Your task to perform on an android device: Clear all items from cart on bestbuy. Search for "alienware area 51" on bestbuy, select the first entry, add it to the cart, then select checkout. Image 0: 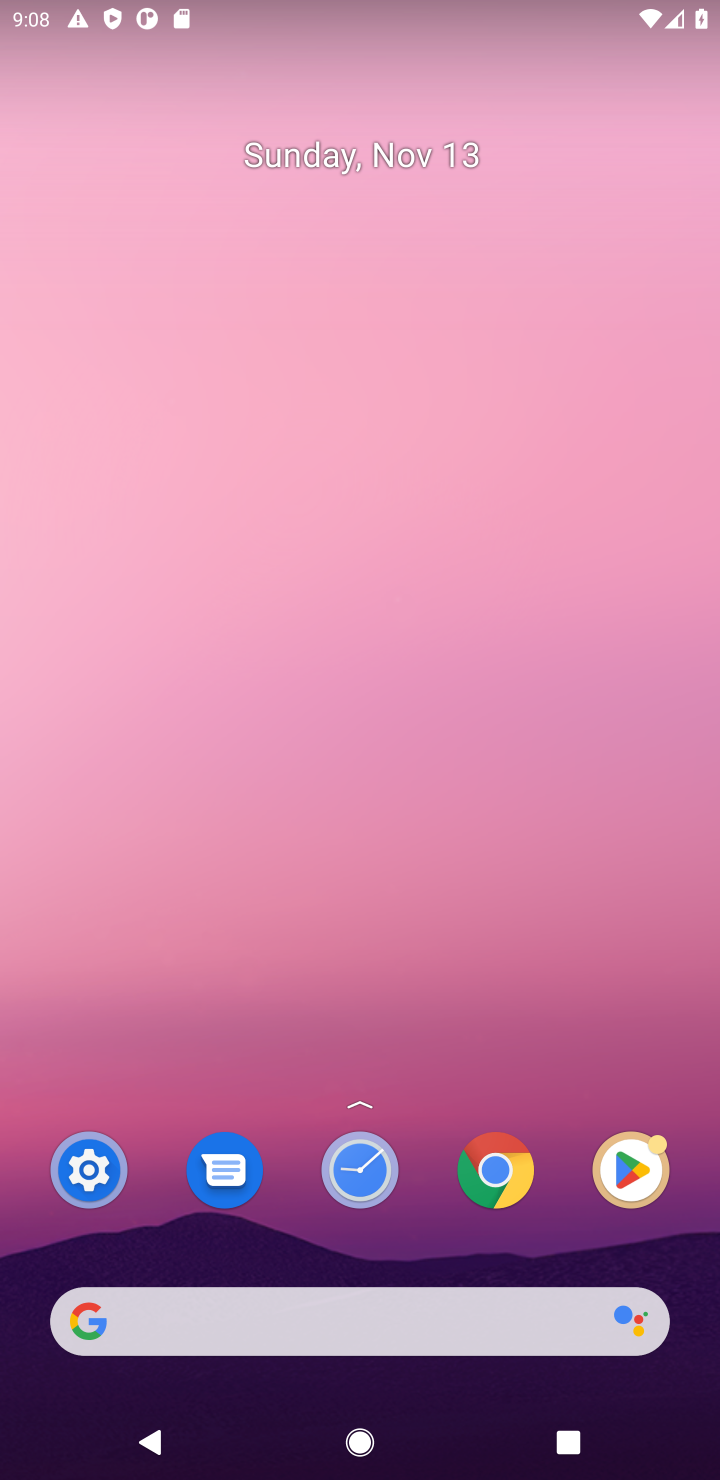
Step 0: click (298, 1296)
Your task to perform on an android device: Clear all items from cart on bestbuy. Search for "alienware area 51" on bestbuy, select the first entry, add it to the cart, then select checkout. Image 1: 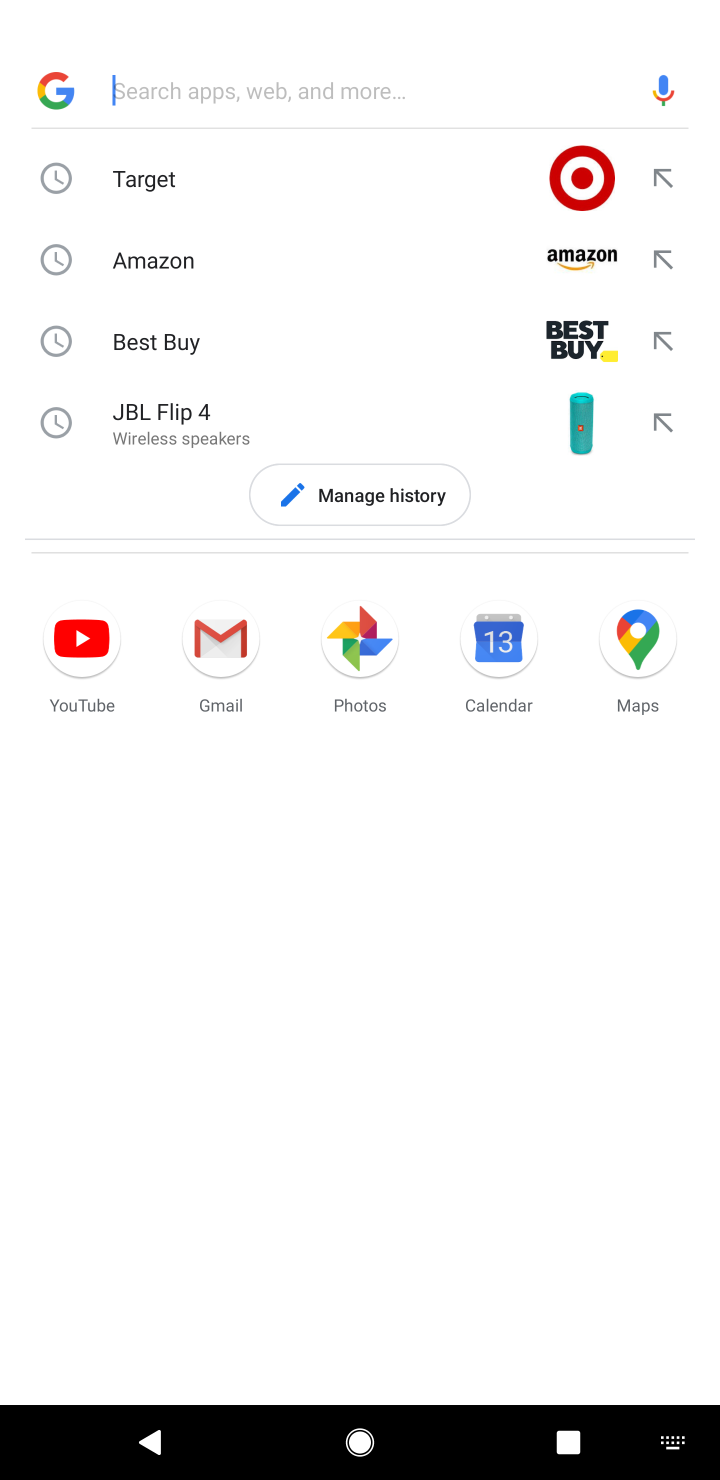
Step 1: click (182, 354)
Your task to perform on an android device: Clear all items from cart on bestbuy. Search for "alienware area 51" on bestbuy, select the first entry, add it to the cart, then select checkout. Image 2: 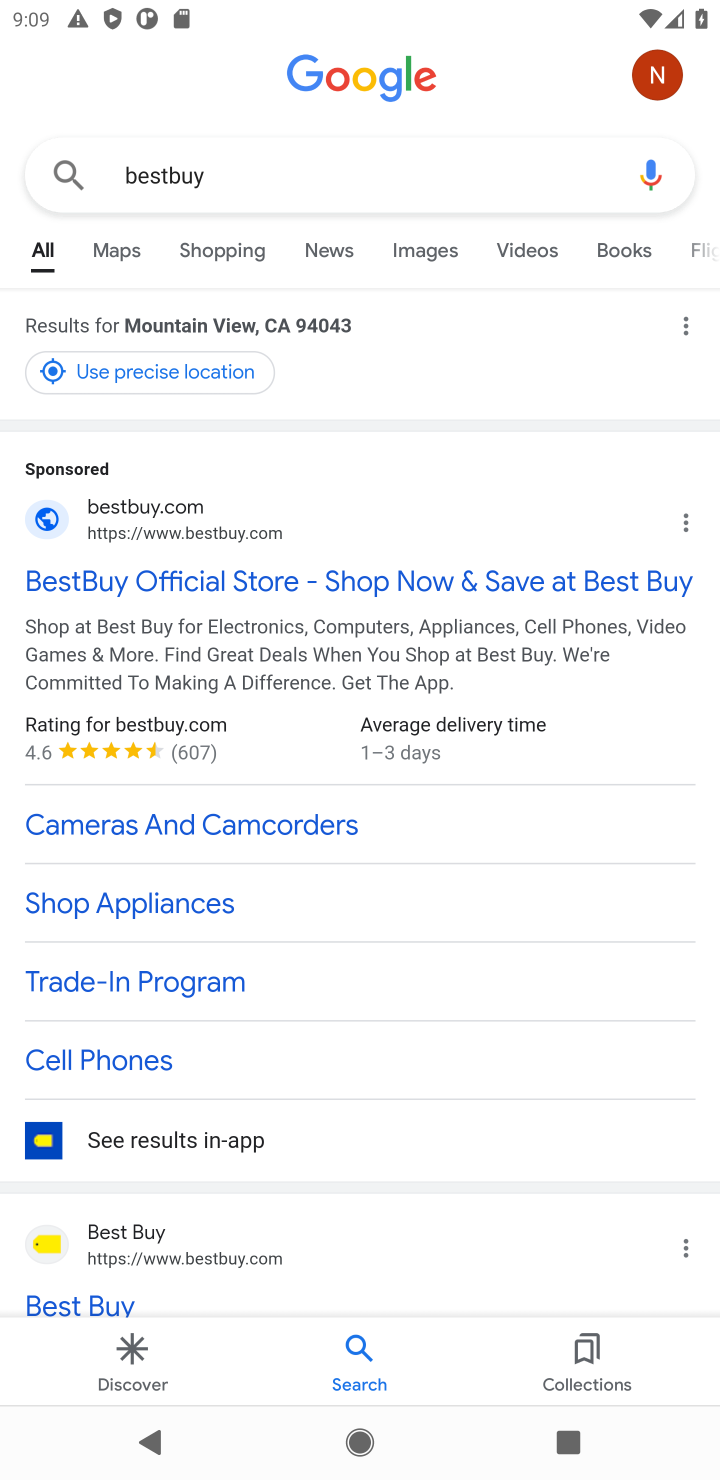
Step 2: click (118, 618)
Your task to perform on an android device: Clear all items from cart on bestbuy. Search for "alienware area 51" on bestbuy, select the first entry, add it to the cart, then select checkout. Image 3: 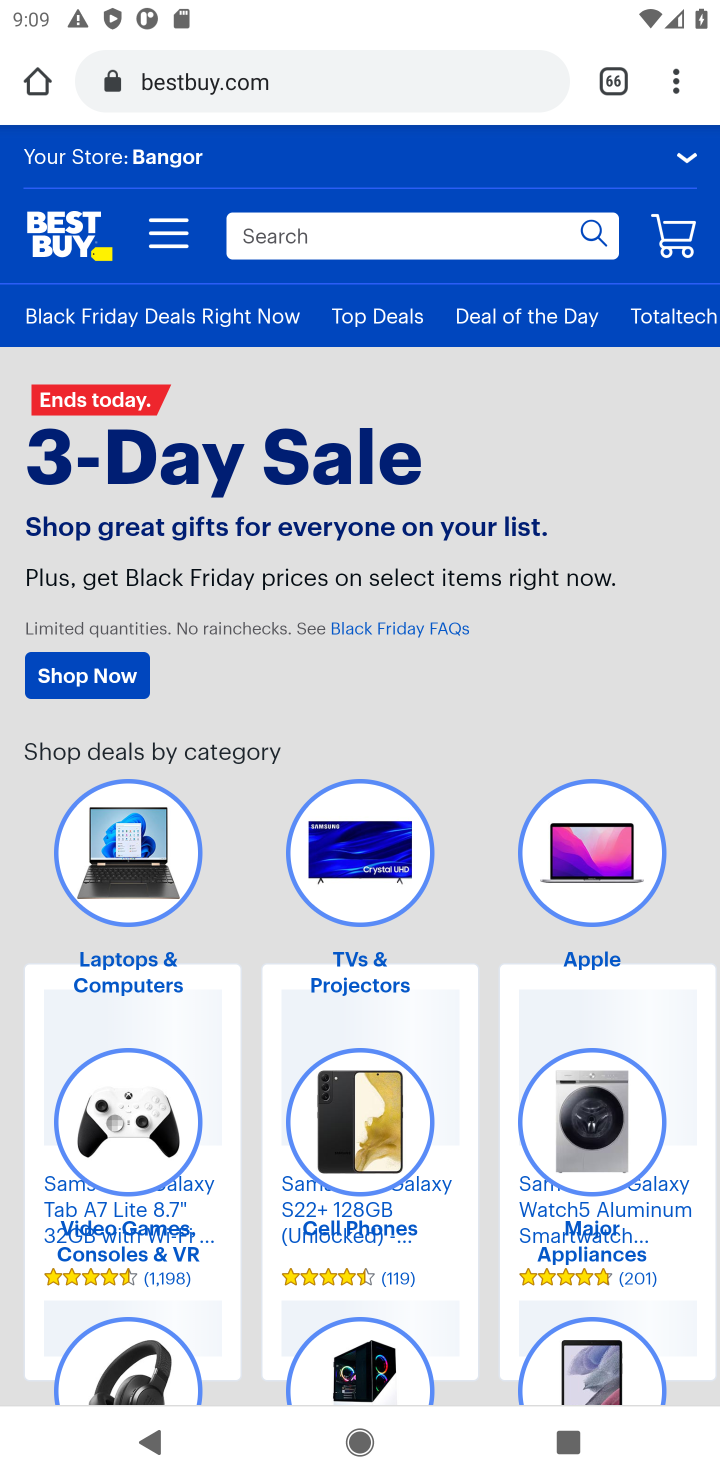
Step 3: task complete